Your task to perform on an android device: Open the map Image 0: 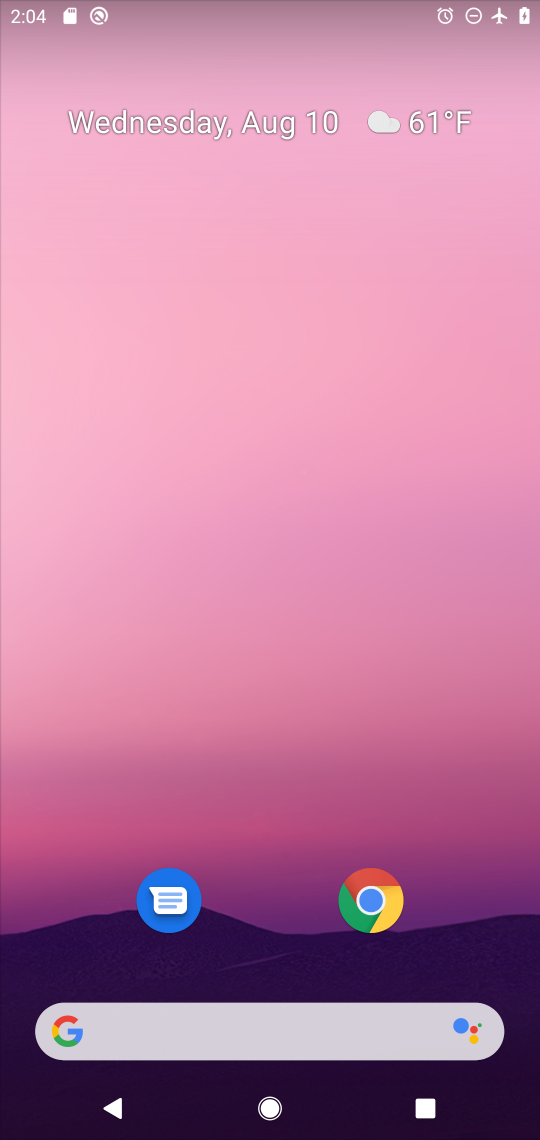
Step 0: drag from (291, 815) to (329, 113)
Your task to perform on an android device: Open the map Image 1: 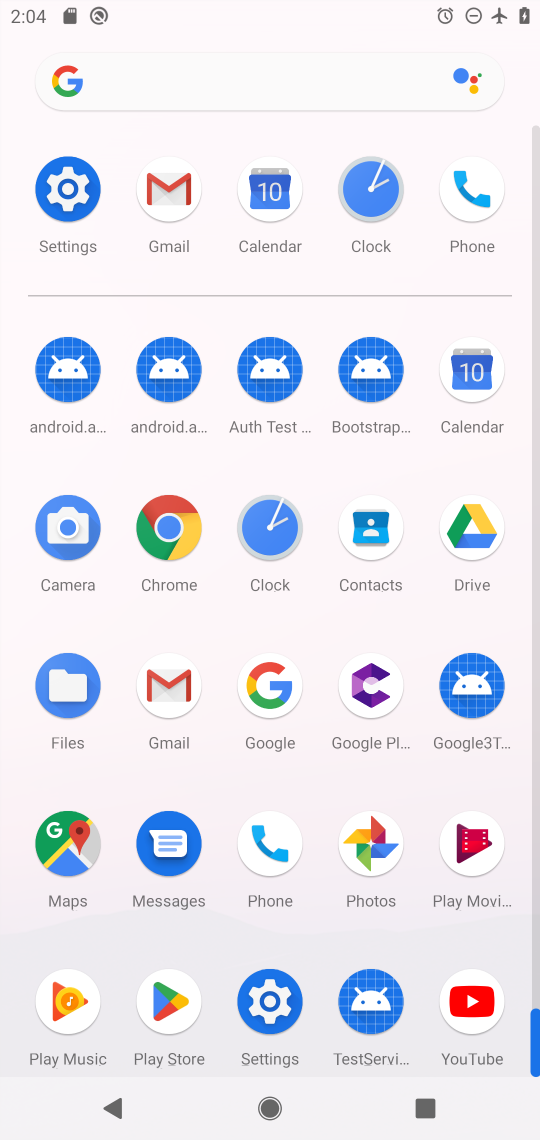
Step 1: click (77, 836)
Your task to perform on an android device: Open the map Image 2: 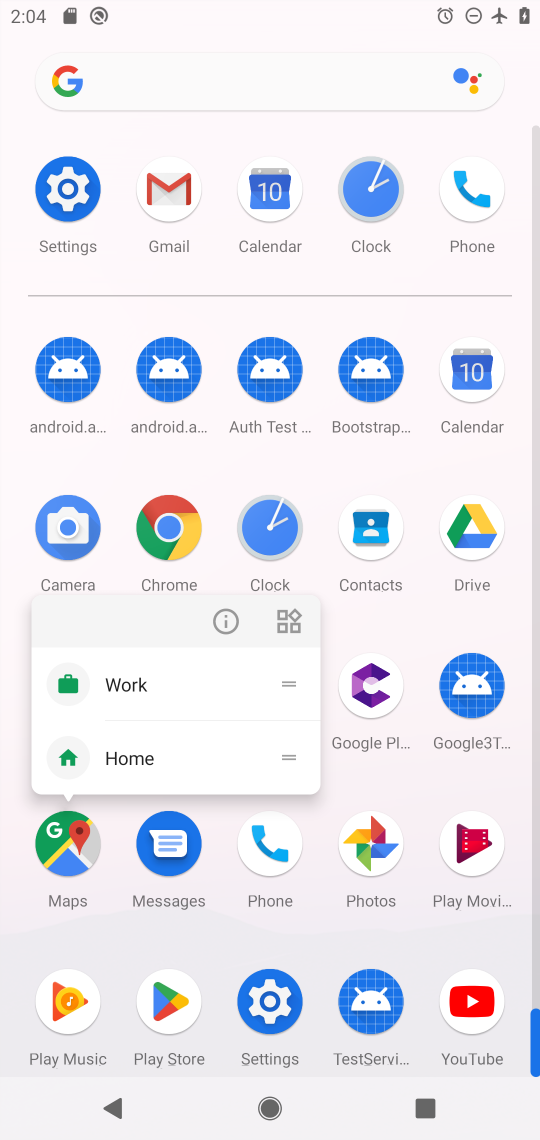
Step 2: click (77, 838)
Your task to perform on an android device: Open the map Image 3: 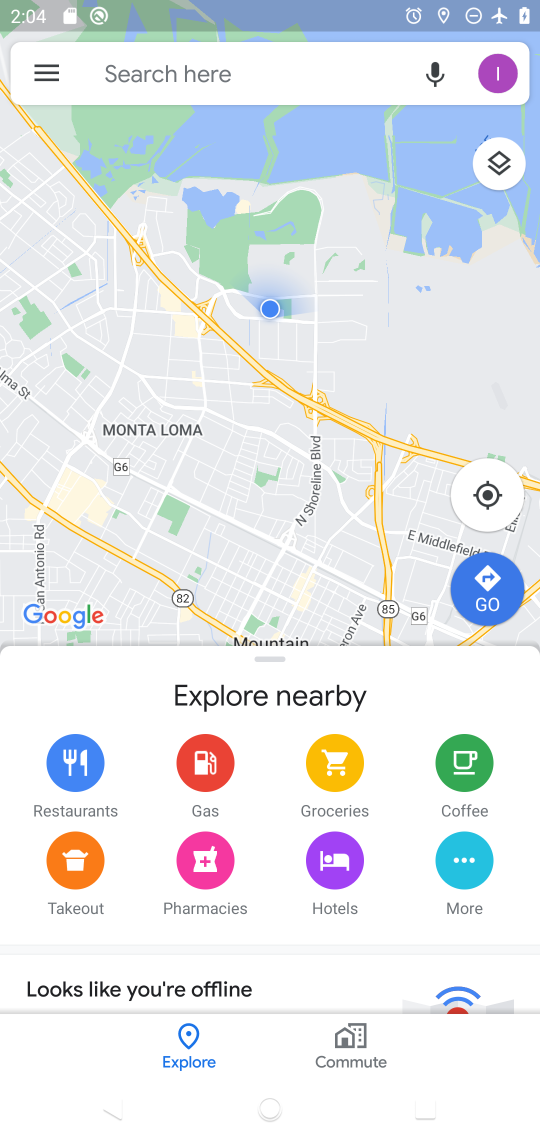
Step 3: task complete